Your task to perform on an android device: open a new tab in the chrome app Image 0: 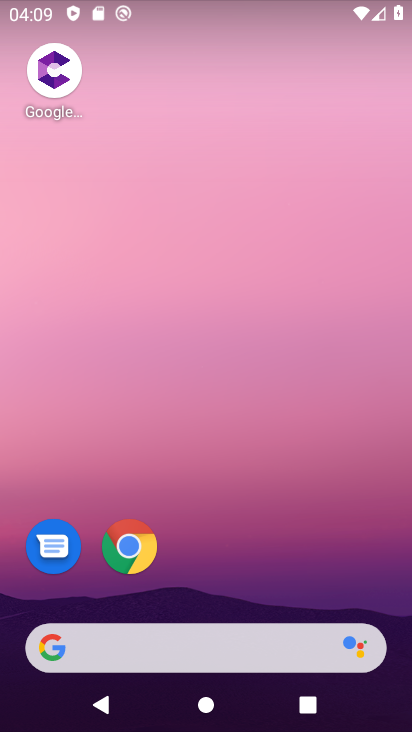
Step 0: drag from (270, 557) to (238, 290)
Your task to perform on an android device: open a new tab in the chrome app Image 1: 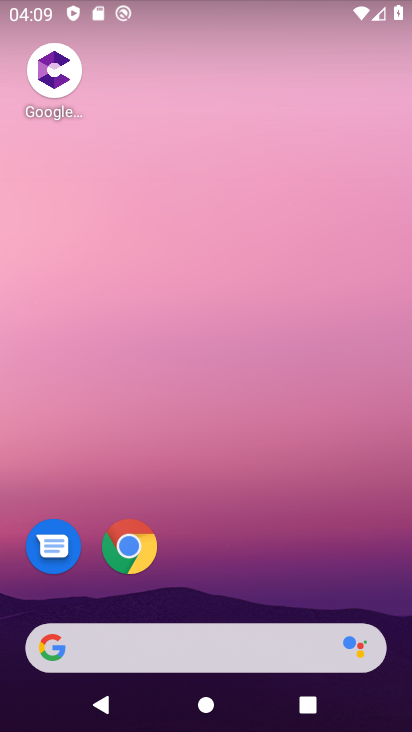
Step 1: drag from (249, 587) to (254, 322)
Your task to perform on an android device: open a new tab in the chrome app Image 2: 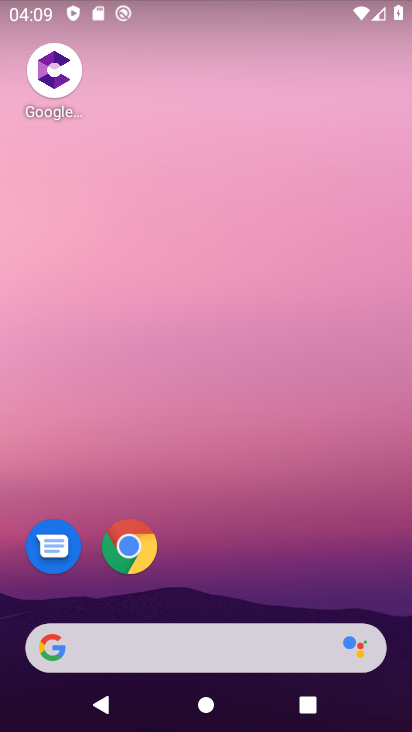
Step 2: drag from (226, 590) to (235, 233)
Your task to perform on an android device: open a new tab in the chrome app Image 3: 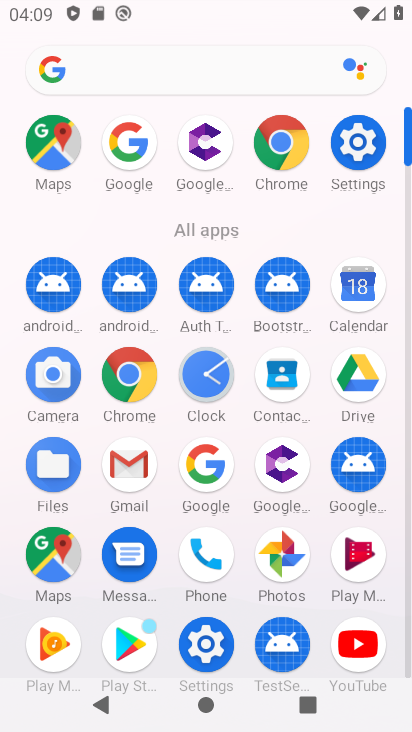
Step 3: click (277, 147)
Your task to perform on an android device: open a new tab in the chrome app Image 4: 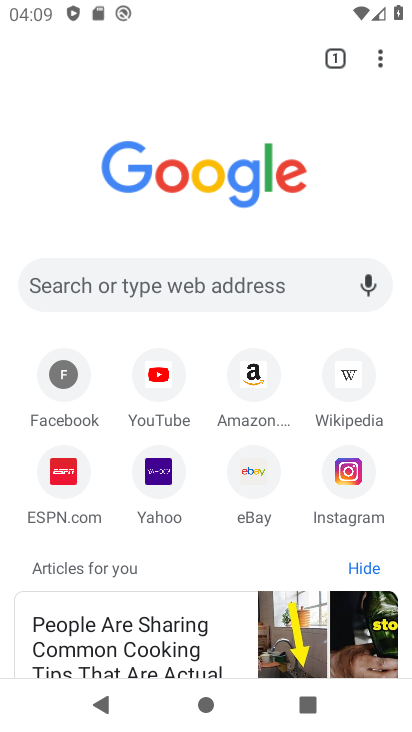
Step 4: click (385, 64)
Your task to perform on an android device: open a new tab in the chrome app Image 5: 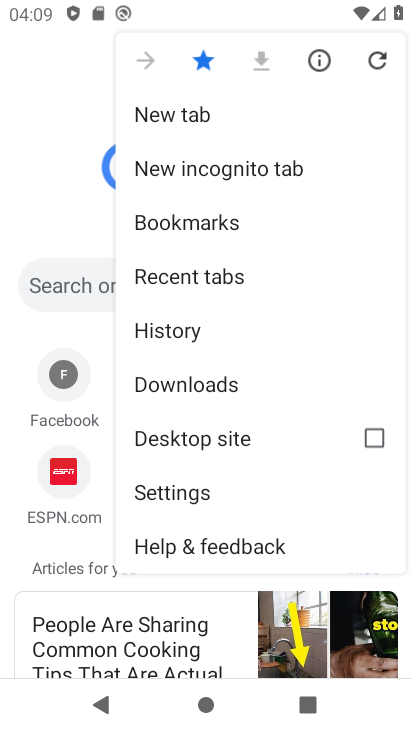
Step 5: click (211, 127)
Your task to perform on an android device: open a new tab in the chrome app Image 6: 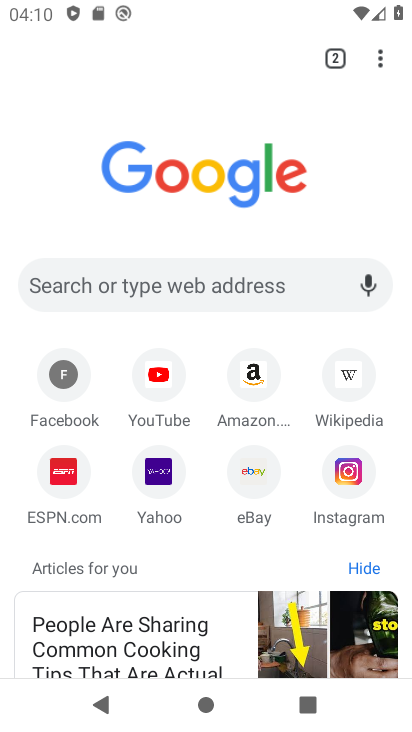
Step 6: task complete